Your task to perform on an android device: turn off sleep mode Image 0: 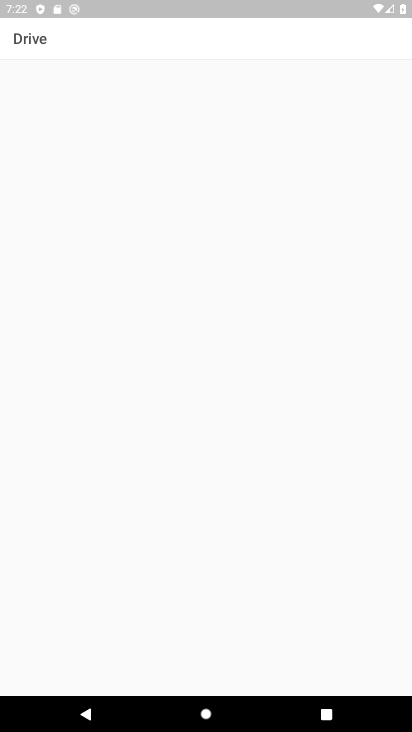
Step 0: press home button
Your task to perform on an android device: turn off sleep mode Image 1: 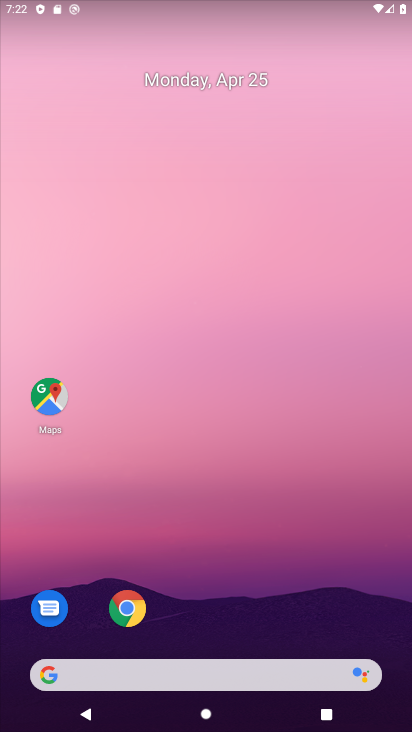
Step 1: drag from (290, 547) to (335, 33)
Your task to perform on an android device: turn off sleep mode Image 2: 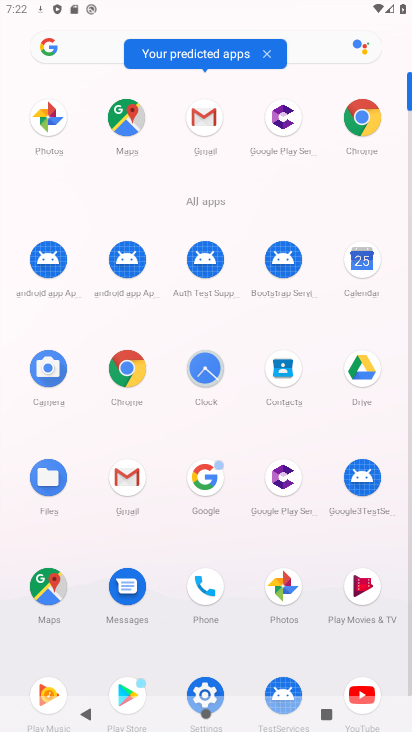
Step 2: click (209, 685)
Your task to perform on an android device: turn off sleep mode Image 3: 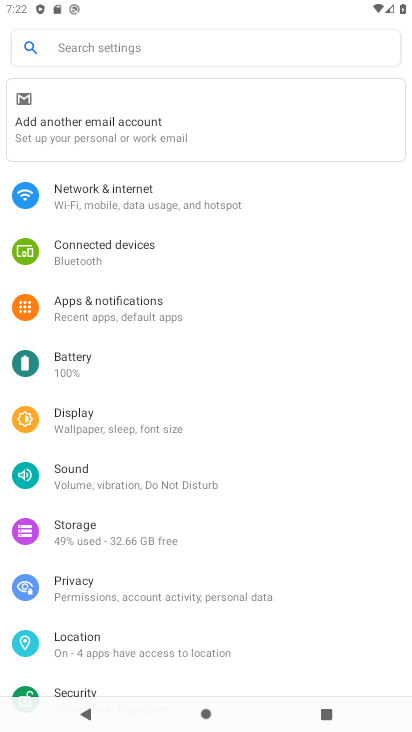
Step 3: click (97, 419)
Your task to perform on an android device: turn off sleep mode Image 4: 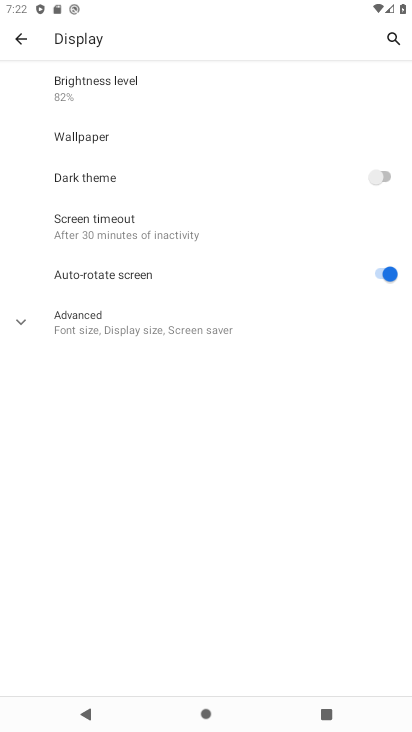
Step 4: click (138, 326)
Your task to perform on an android device: turn off sleep mode Image 5: 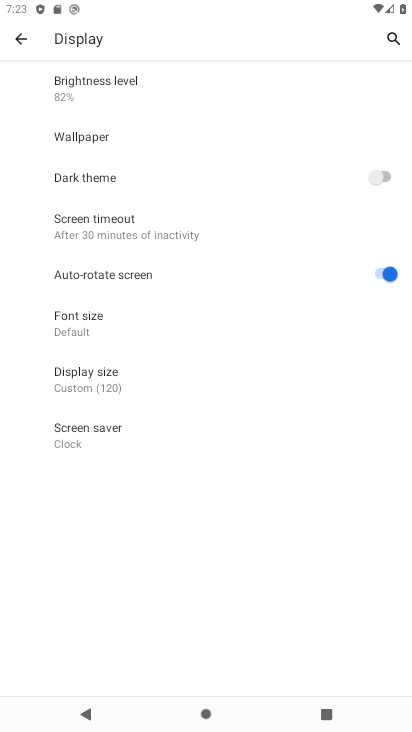
Step 5: task complete